Your task to perform on an android device: open app "ZOOM Cloud Meetings" (install if not already installed) Image 0: 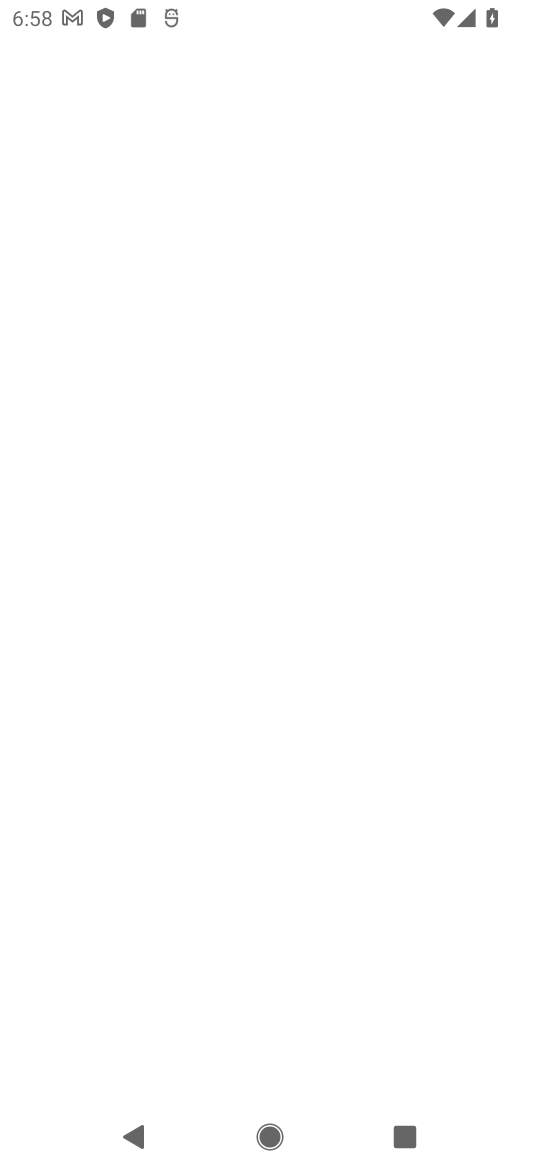
Step 0: press home button
Your task to perform on an android device: open app "ZOOM Cloud Meetings" (install if not already installed) Image 1: 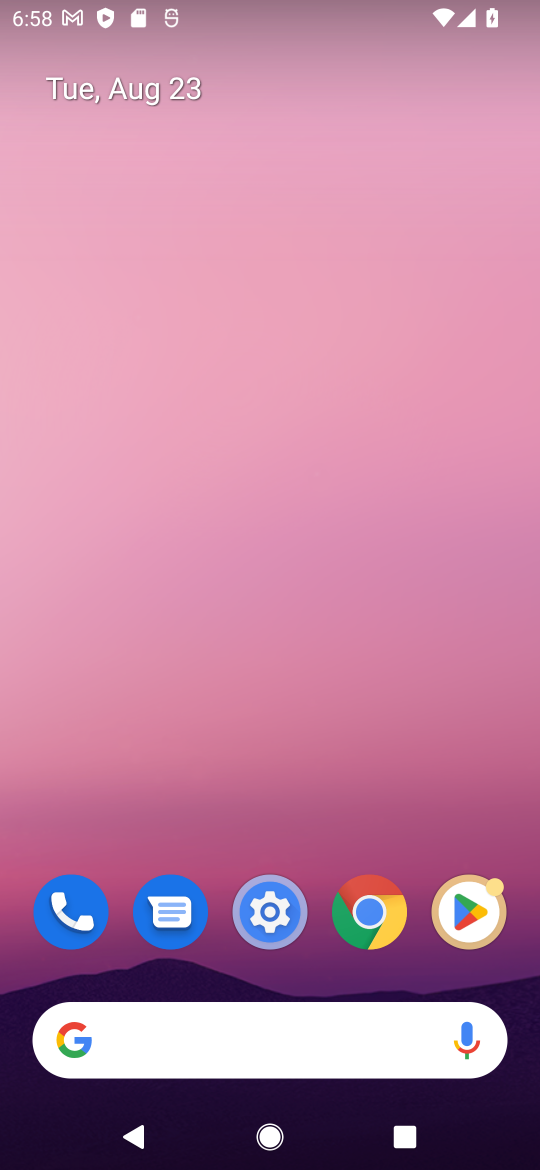
Step 1: drag from (305, 658) to (304, 111)
Your task to perform on an android device: open app "ZOOM Cloud Meetings" (install if not already installed) Image 2: 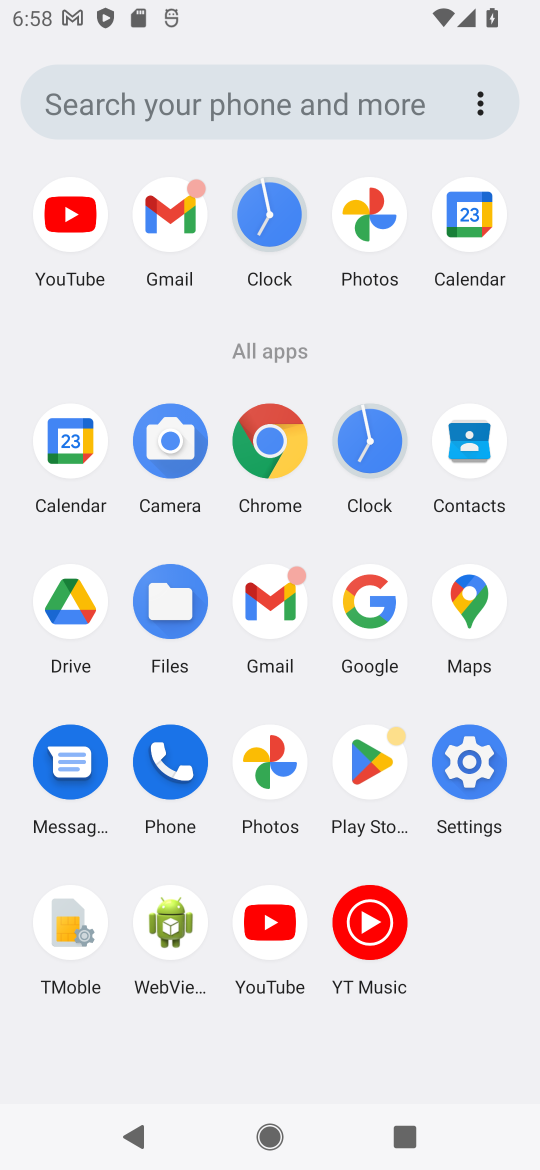
Step 2: click (372, 760)
Your task to perform on an android device: open app "ZOOM Cloud Meetings" (install if not already installed) Image 3: 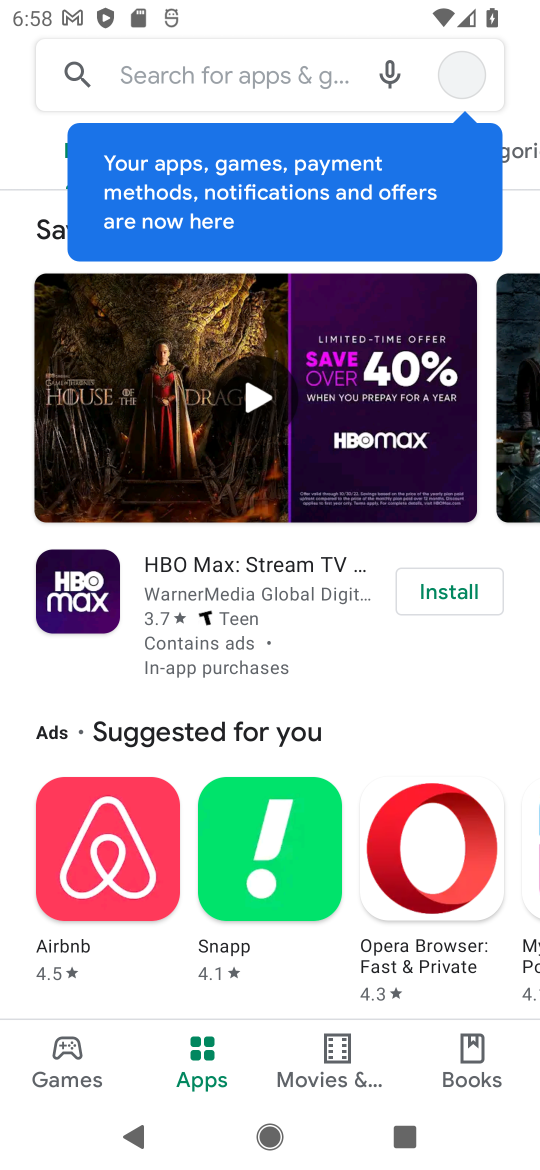
Step 3: click (245, 66)
Your task to perform on an android device: open app "ZOOM Cloud Meetings" (install if not already installed) Image 4: 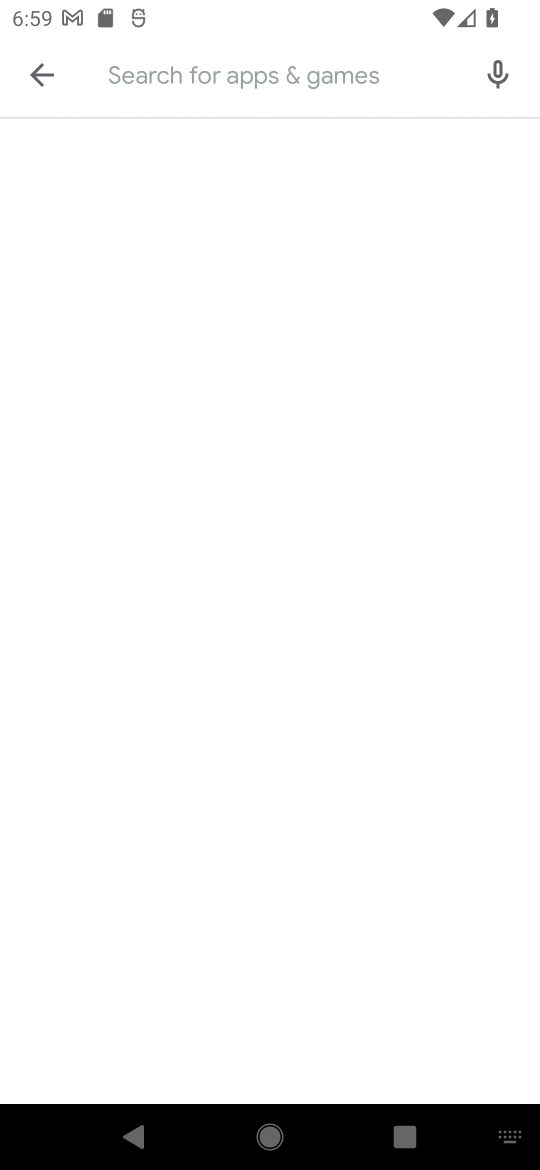
Step 4: type "ZOOM Cloud Meetings"
Your task to perform on an android device: open app "ZOOM Cloud Meetings" (install if not already installed) Image 5: 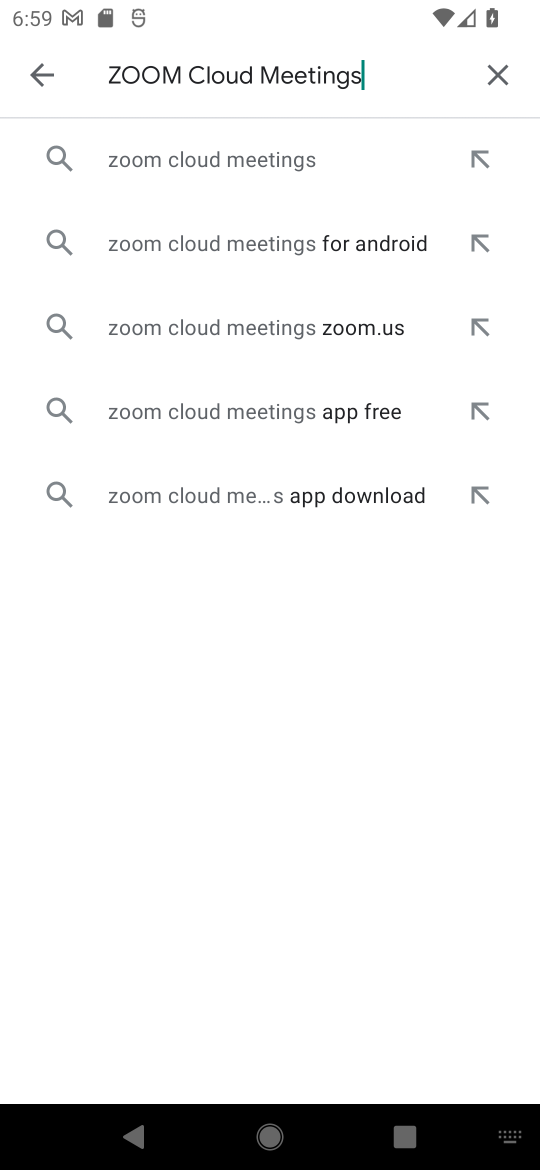
Step 5: click (205, 159)
Your task to perform on an android device: open app "ZOOM Cloud Meetings" (install if not already installed) Image 6: 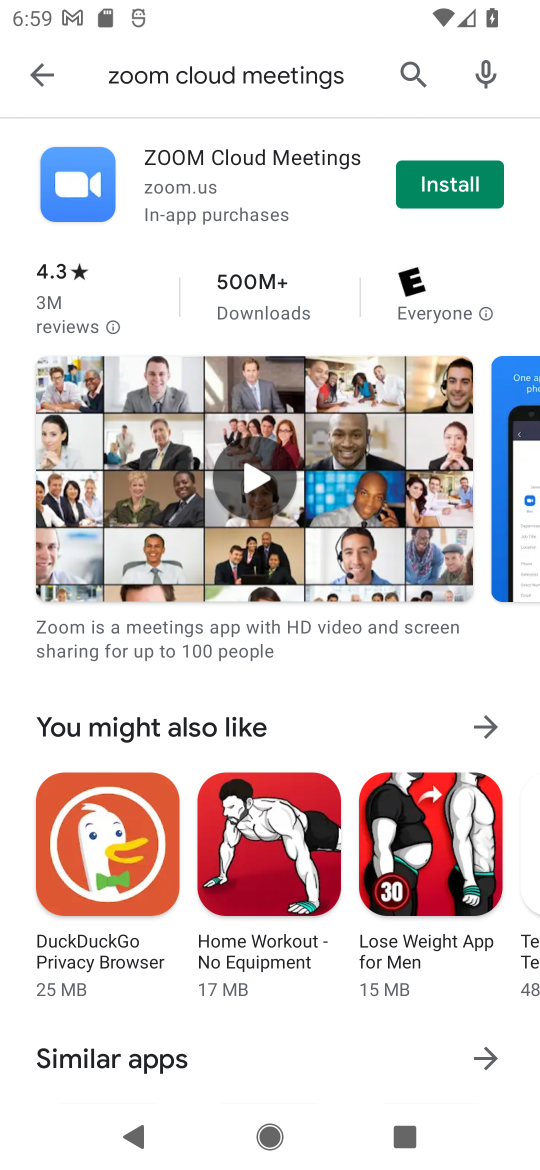
Step 6: click (454, 180)
Your task to perform on an android device: open app "ZOOM Cloud Meetings" (install if not already installed) Image 7: 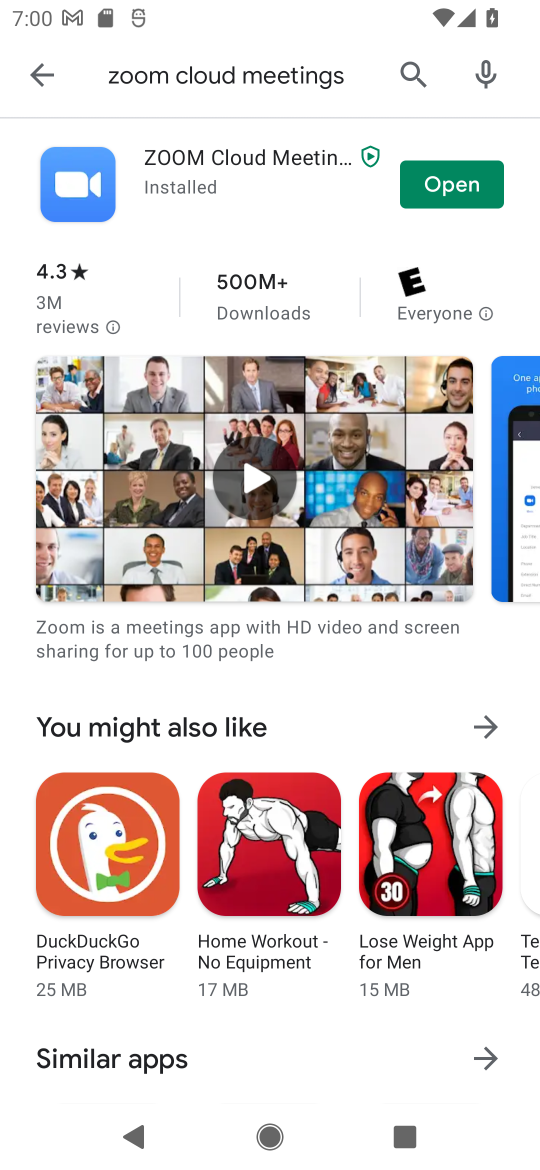
Step 7: click (450, 183)
Your task to perform on an android device: open app "ZOOM Cloud Meetings" (install if not already installed) Image 8: 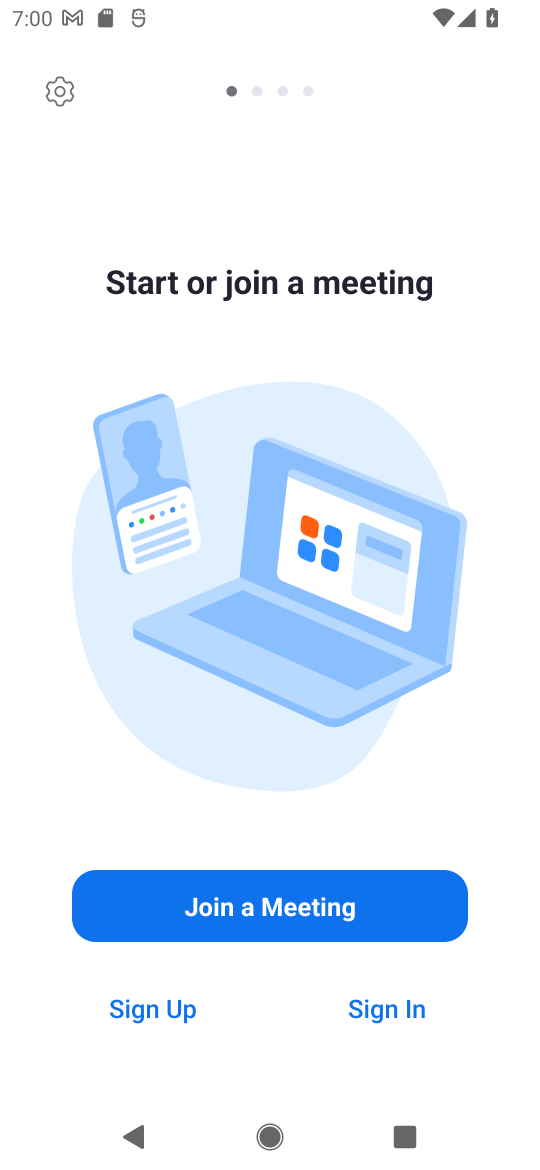
Step 8: task complete